Your task to perform on an android device: set an alarm Image 0: 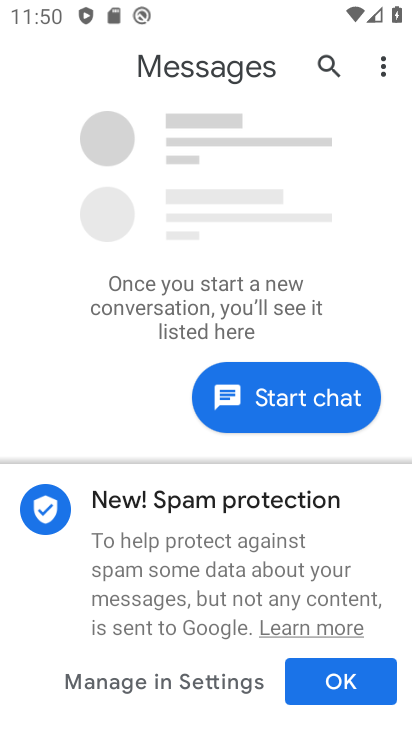
Step 0: press home button
Your task to perform on an android device: set an alarm Image 1: 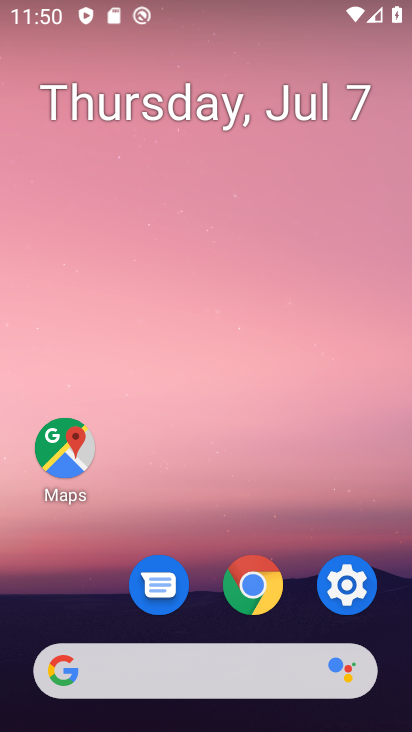
Step 1: drag from (209, 699) to (132, 141)
Your task to perform on an android device: set an alarm Image 2: 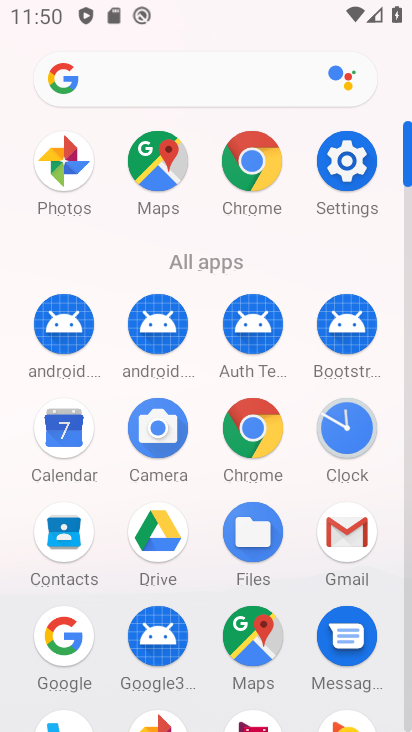
Step 2: click (332, 439)
Your task to perform on an android device: set an alarm Image 3: 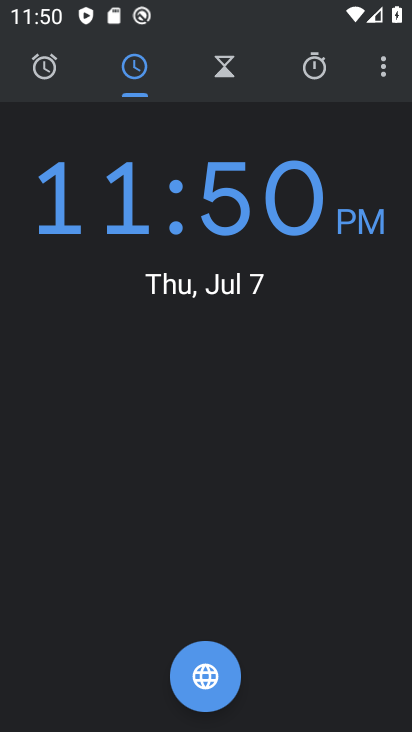
Step 3: click (41, 67)
Your task to perform on an android device: set an alarm Image 4: 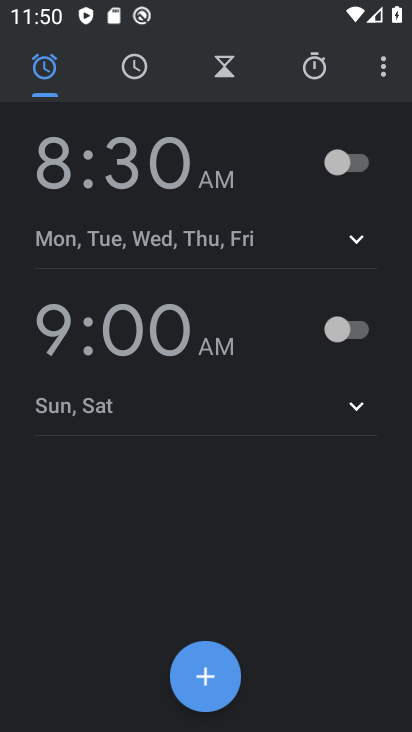
Step 4: click (343, 174)
Your task to perform on an android device: set an alarm Image 5: 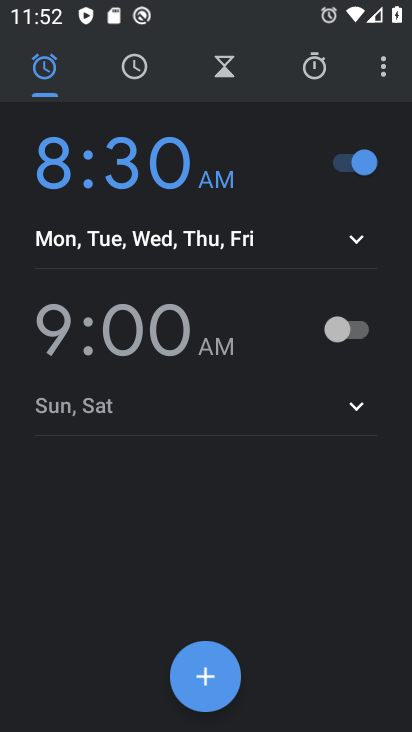
Step 5: task complete